Your task to perform on an android device: find snoozed emails in the gmail app Image 0: 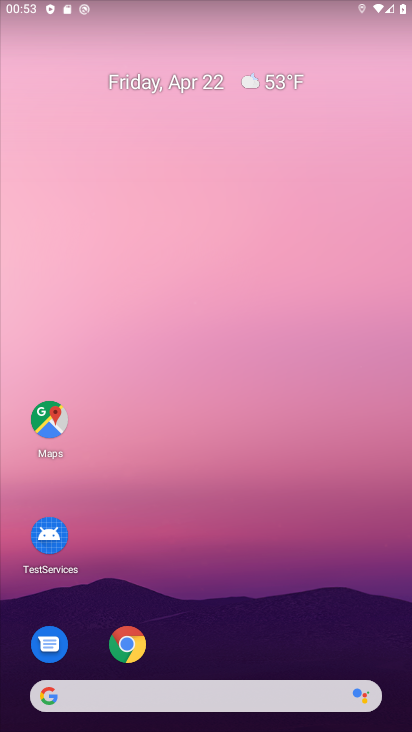
Step 0: drag from (279, 637) to (321, 212)
Your task to perform on an android device: find snoozed emails in the gmail app Image 1: 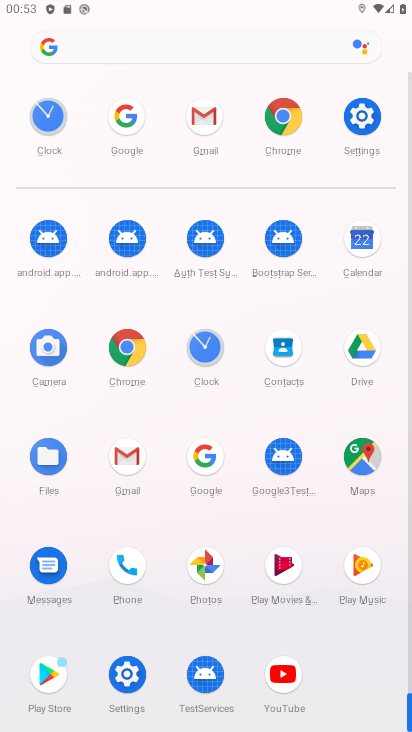
Step 1: click (124, 460)
Your task to perform on an android device: find snoozed emails in the gmail app Image 2: 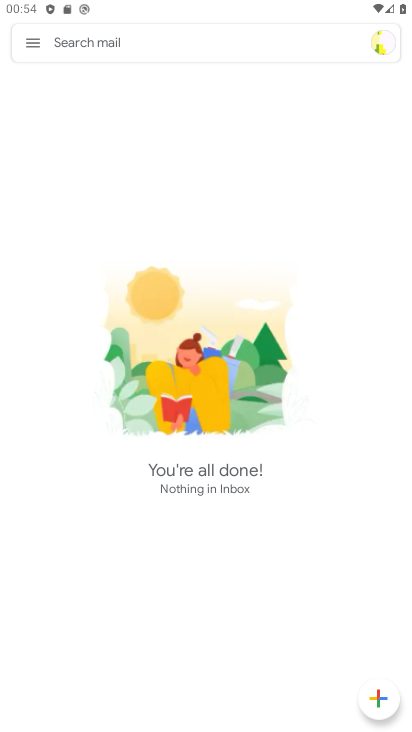
Step 2: click (26, 43)
Your task to perform on an android device: find snoozed emails in the gmail app Image 3: 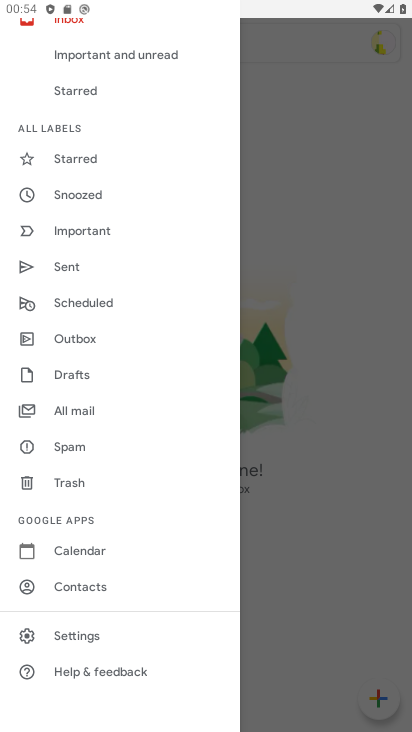
Step 3: click (84, 193)
Your task to perform on an android device: find snoozed emails in the gmail app Image 4: 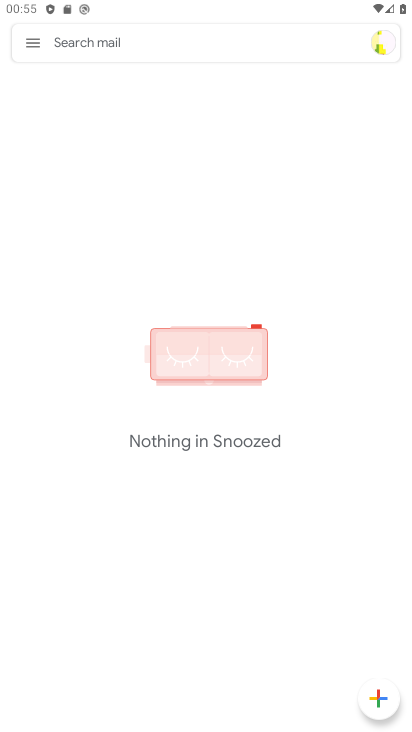
Step 4: task complete